Your task to perform on an android device: turn on showing notifications on the lock screen Image 0: 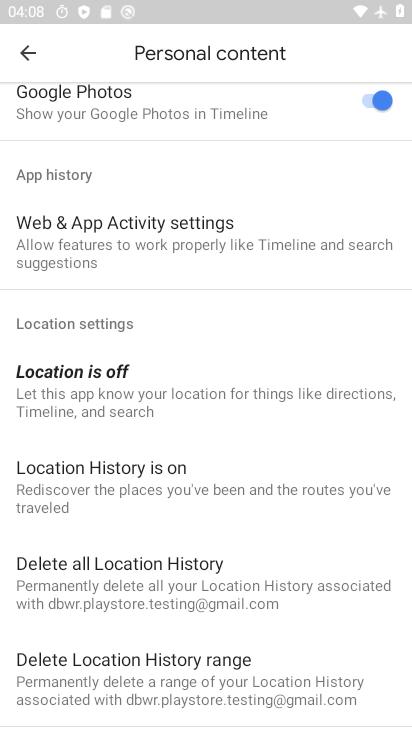
Step 0: press home button
Your task to perform on an android device: turn on showing notifications on the lock screen Image 1: 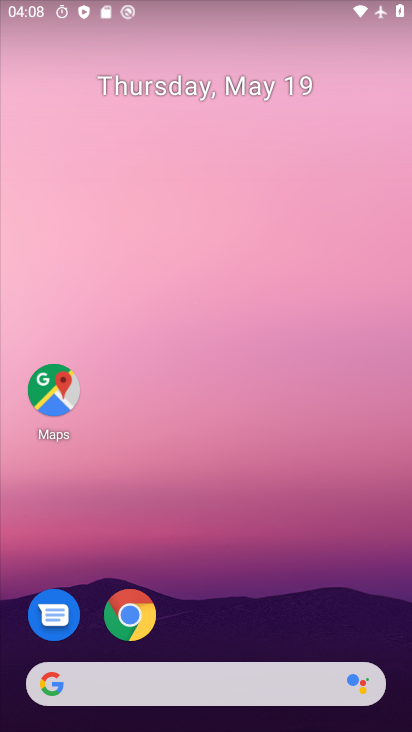
Step 1: drag from (279, 637) to (311, 6)
Your task to perform on an android device: turn on showing notifications on the lock screen Image 2: 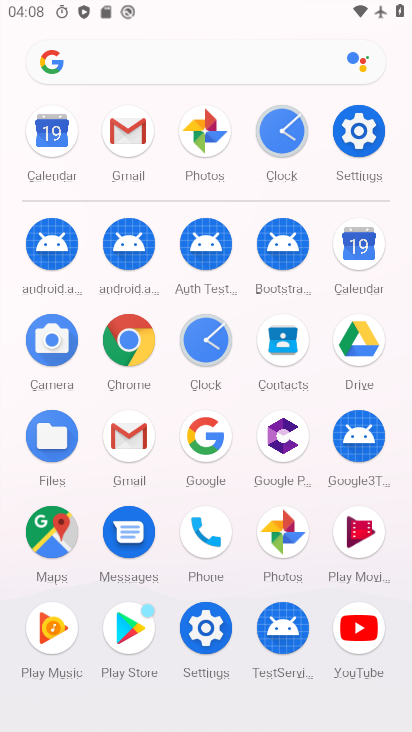
Step 2: click (366, 124)
Your task to perform on an android device: turn on showing notifications on the lock screen Image 3: 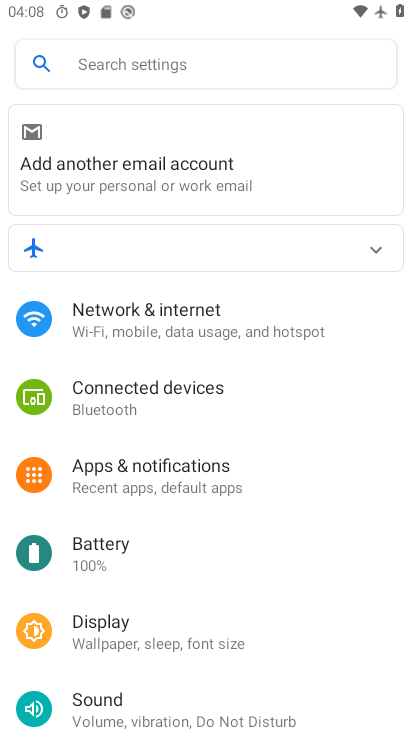
Step 3: click (151, 491)
Your task to perform on an android device: turn on showing notifications on the lock screen Image 4: 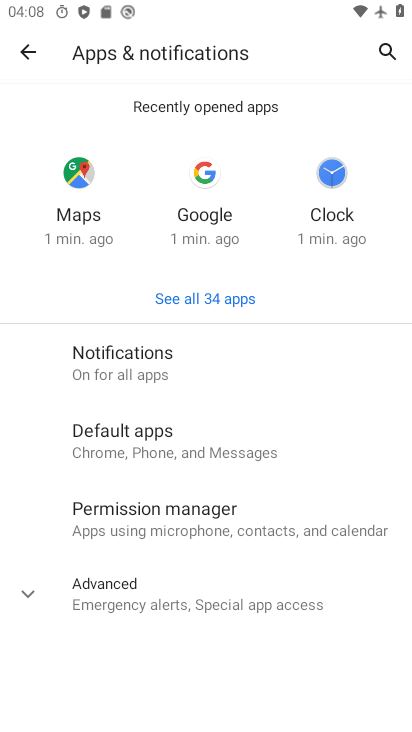
Step 4: click (136, 378)
Your task to perform on an android device: turn on showing notifications on the lock screen Image 5: 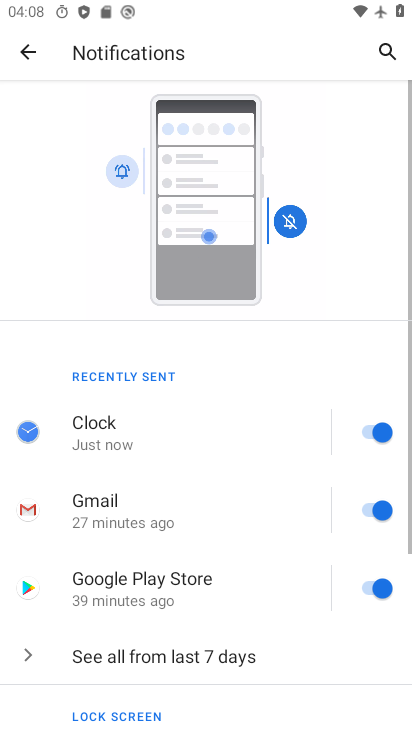
Step 5: drag from (130, 623) to (149, 346)
Your task to perform on an android device: turn on showing notifications on the lock screen Image 6: 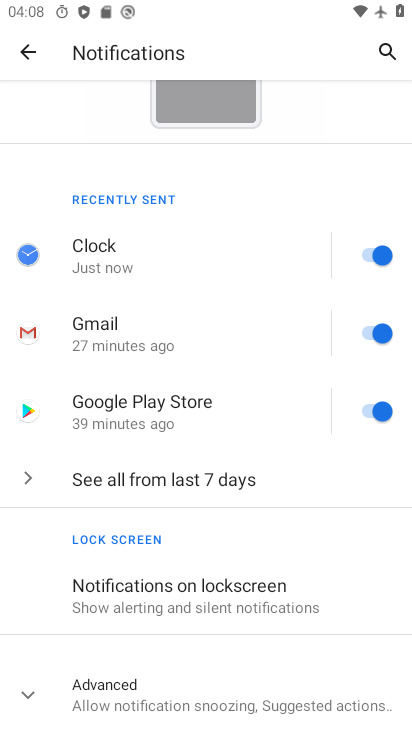
Step 6: click (109, 580)
Your task to perform on an android device: turn on showing notifications on the lock screen Image 7: 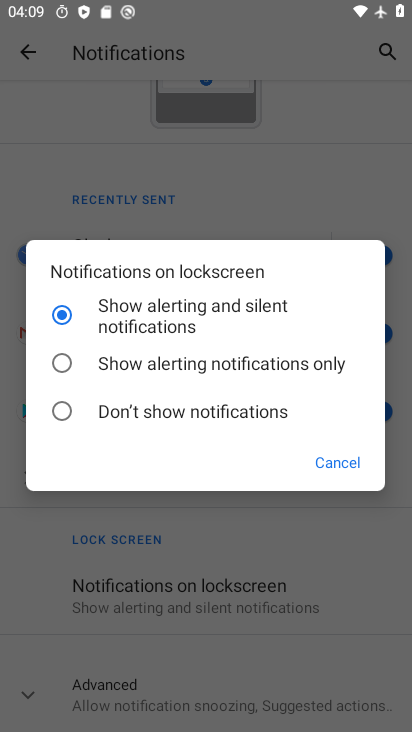
Step 7: task complete